Your task to perform on an android device: Go to privacy settings Image 0: 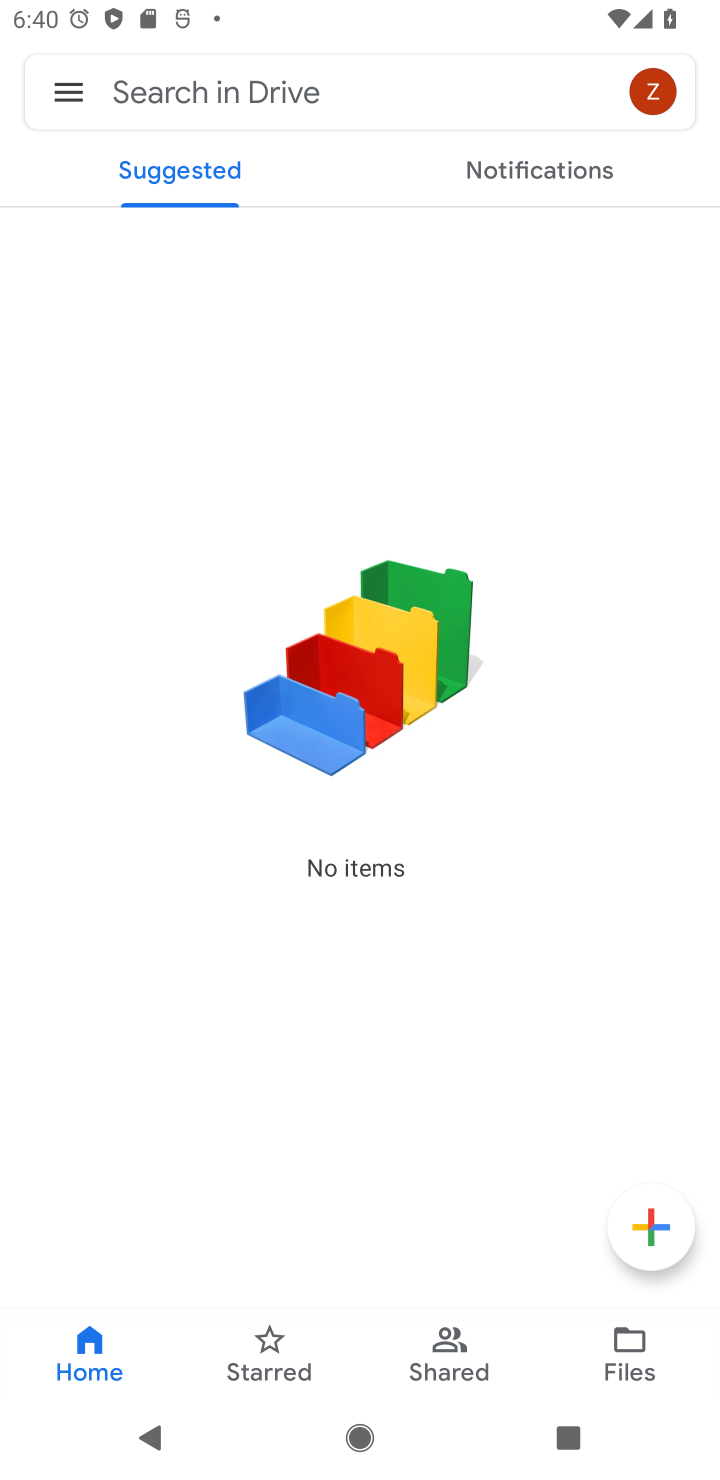
Step 0: press home button
Your task to perform on an android device: Go to privacy settings Image 1: 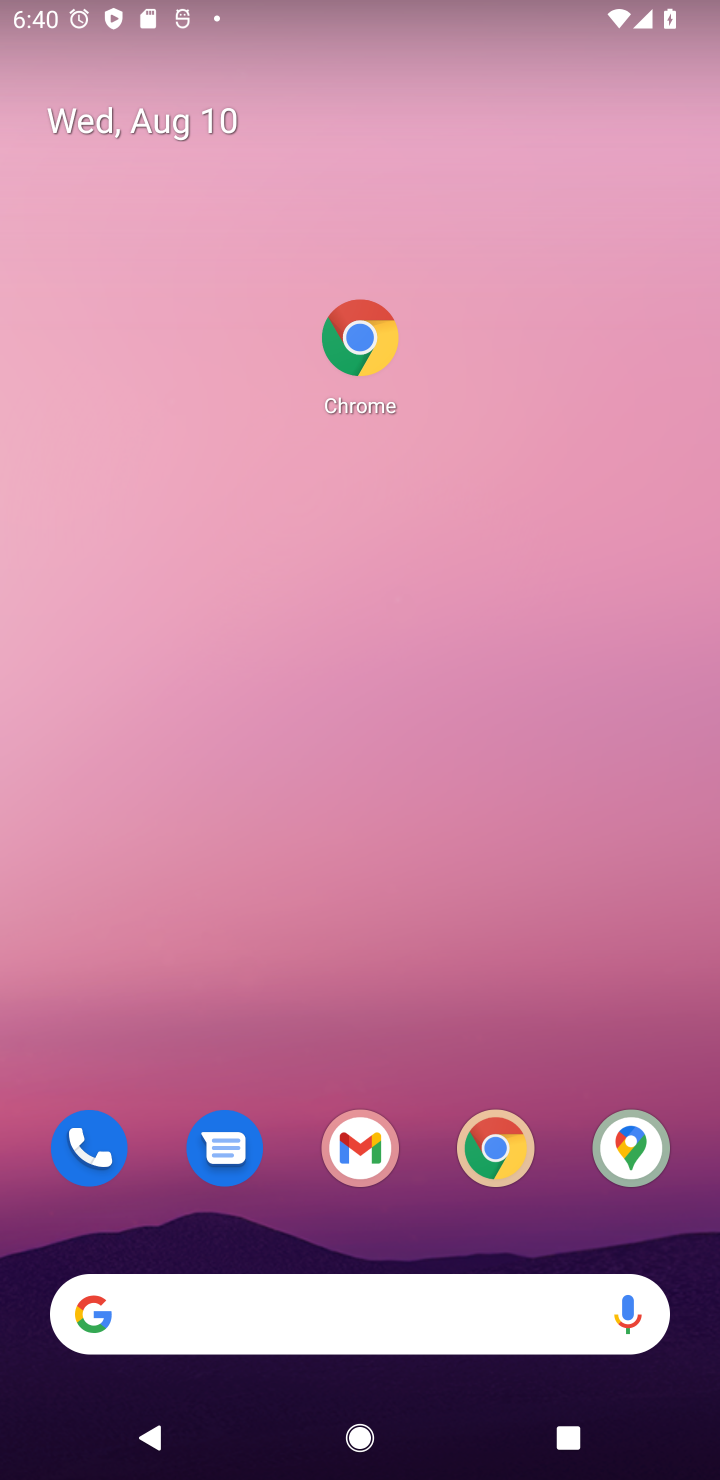
Step 1: drag from (278, 1058) to (369, 338)
Your task to perform on an android device: Go to privacy settings Image 2: 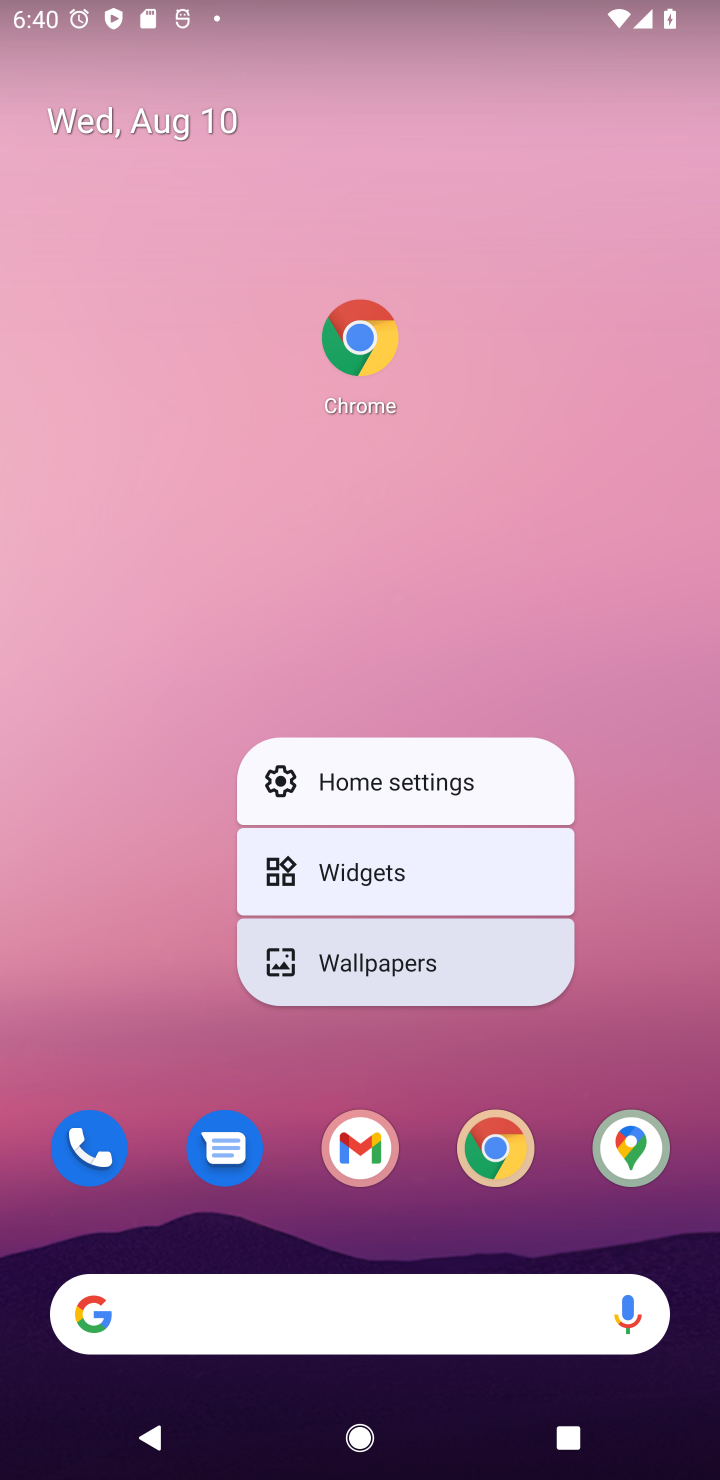
Step 2: click (552, 1037)
Your task to perform on an android device: Go to privacy settings Image 3: 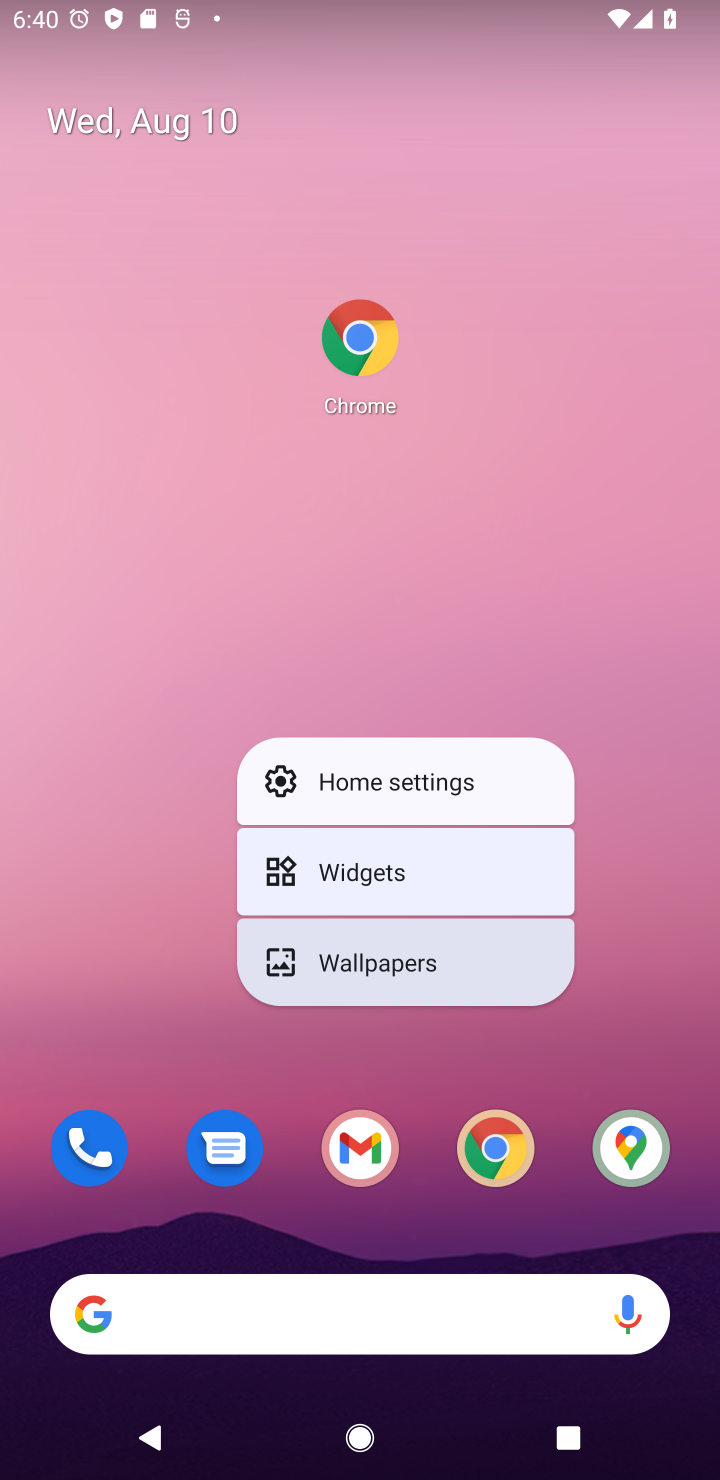
Step 3: drag from (552, 1037) to (636, 28)
Your task to perform on an android device: Go to privacy settings Image 4: 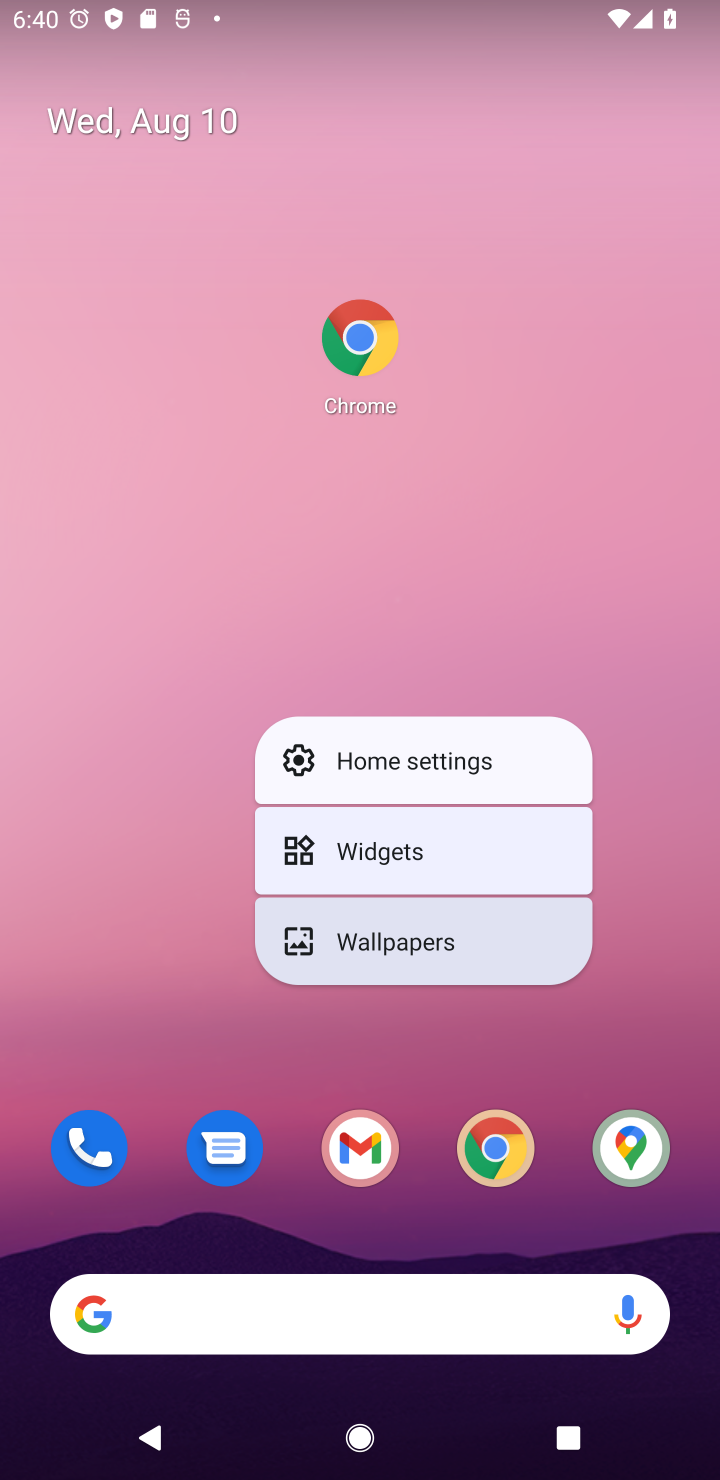
Step 4: click (32, 1033)
Your task to perform on an android device: Go to privacy settings Image 5: 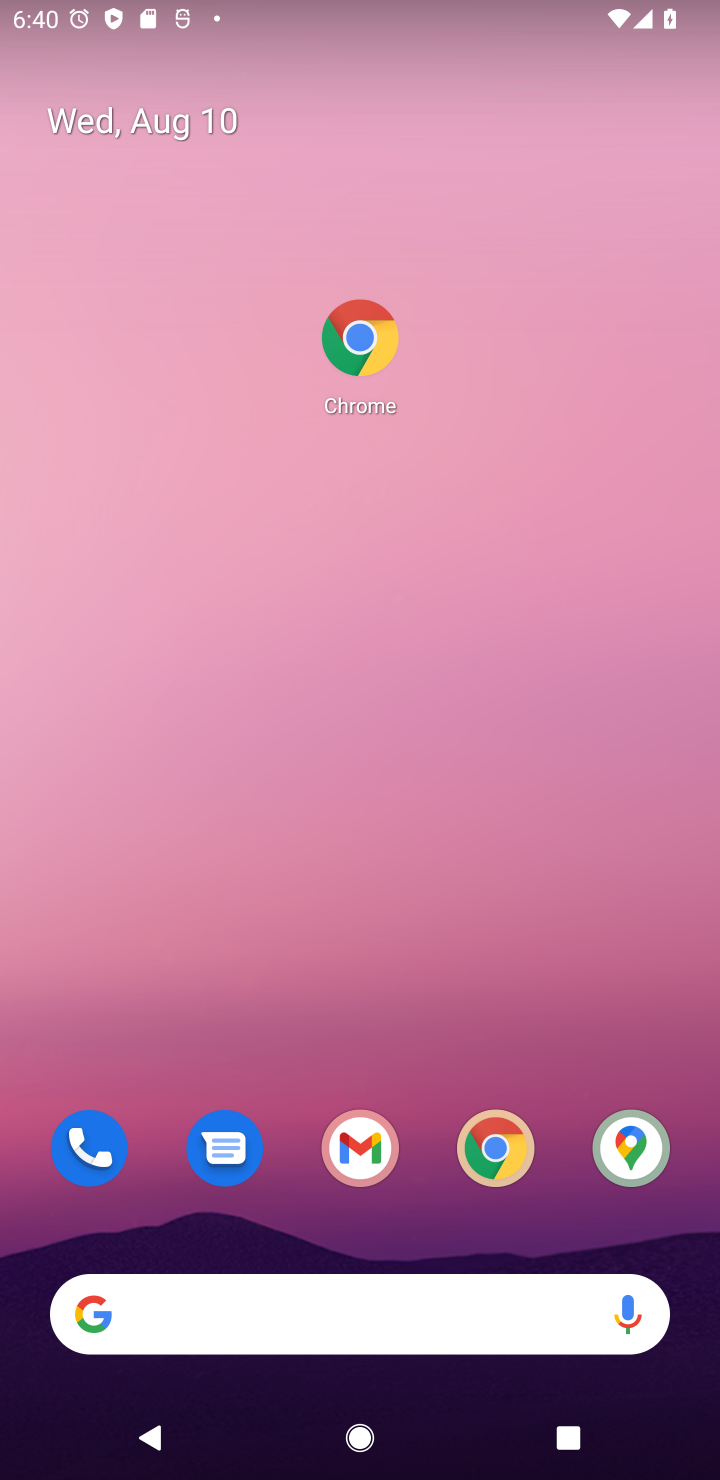
Step 5: drag from (32, 1033) to (289, 17)
Your task to perform on an android device: Go to privacy settings Image 6: 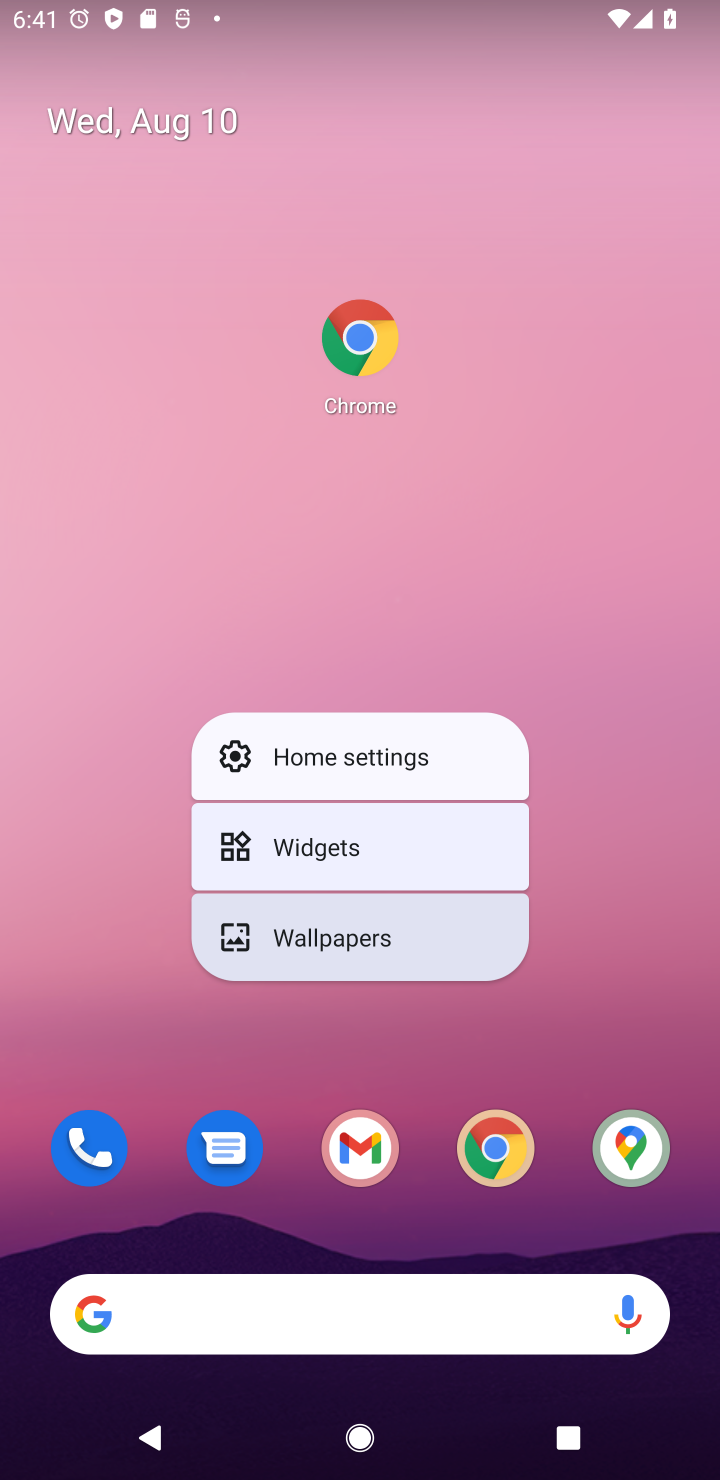
Step 6: click (576, 827)
Your task to perform on an android device: Go to privacy settings Image 7: 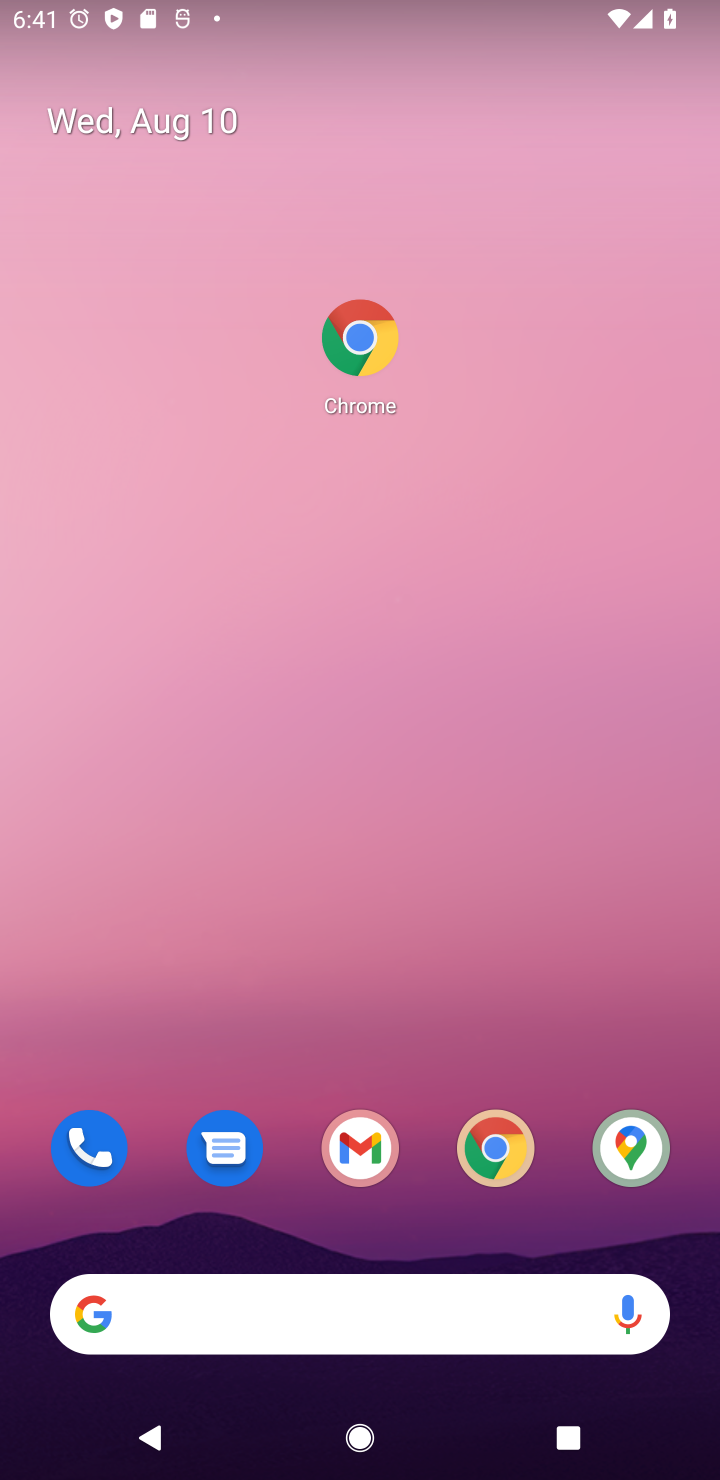
Step 7: drag from (578, 1062) to (552, 197)
Your task to perform on an android device: Go to privacy settings Image 8: 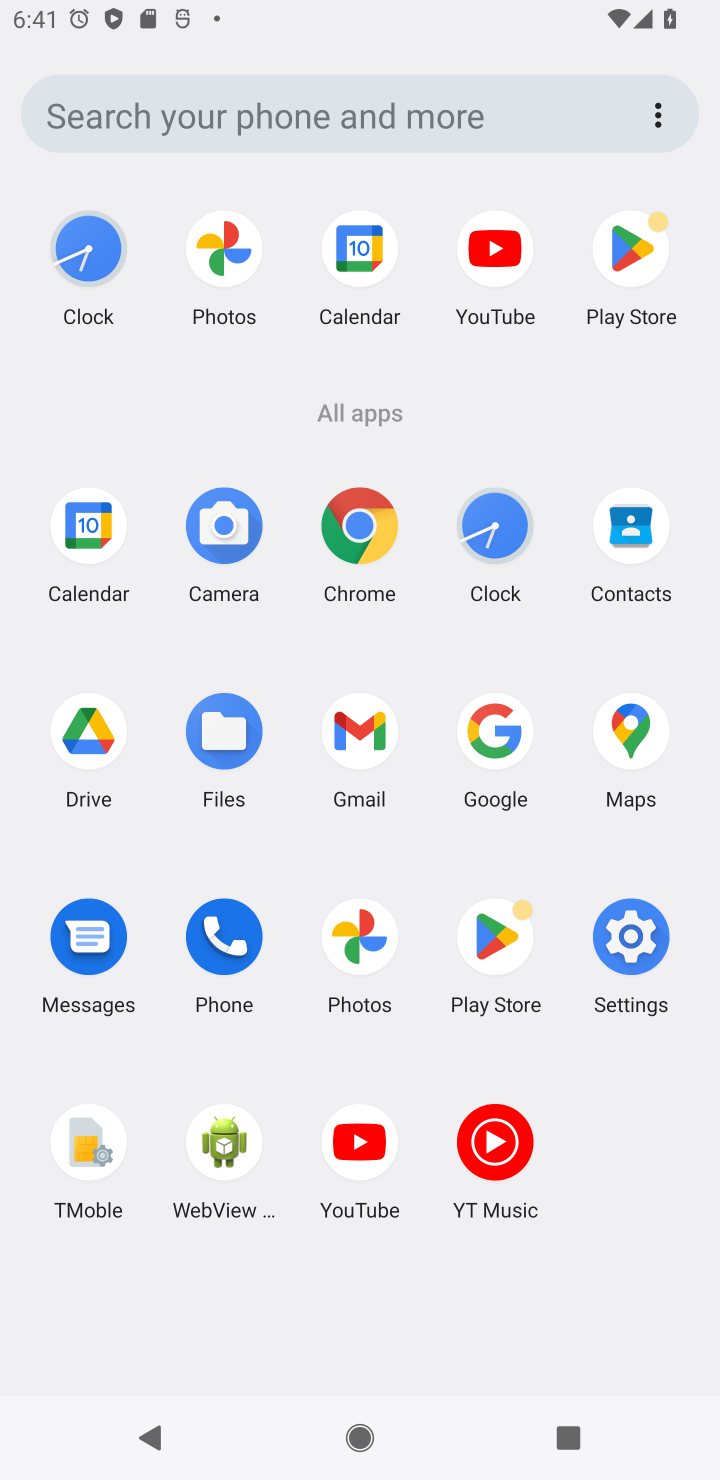
Step 8: click (607, 966)
Your task to perform on an android device: Go to privacy settings Image 9: 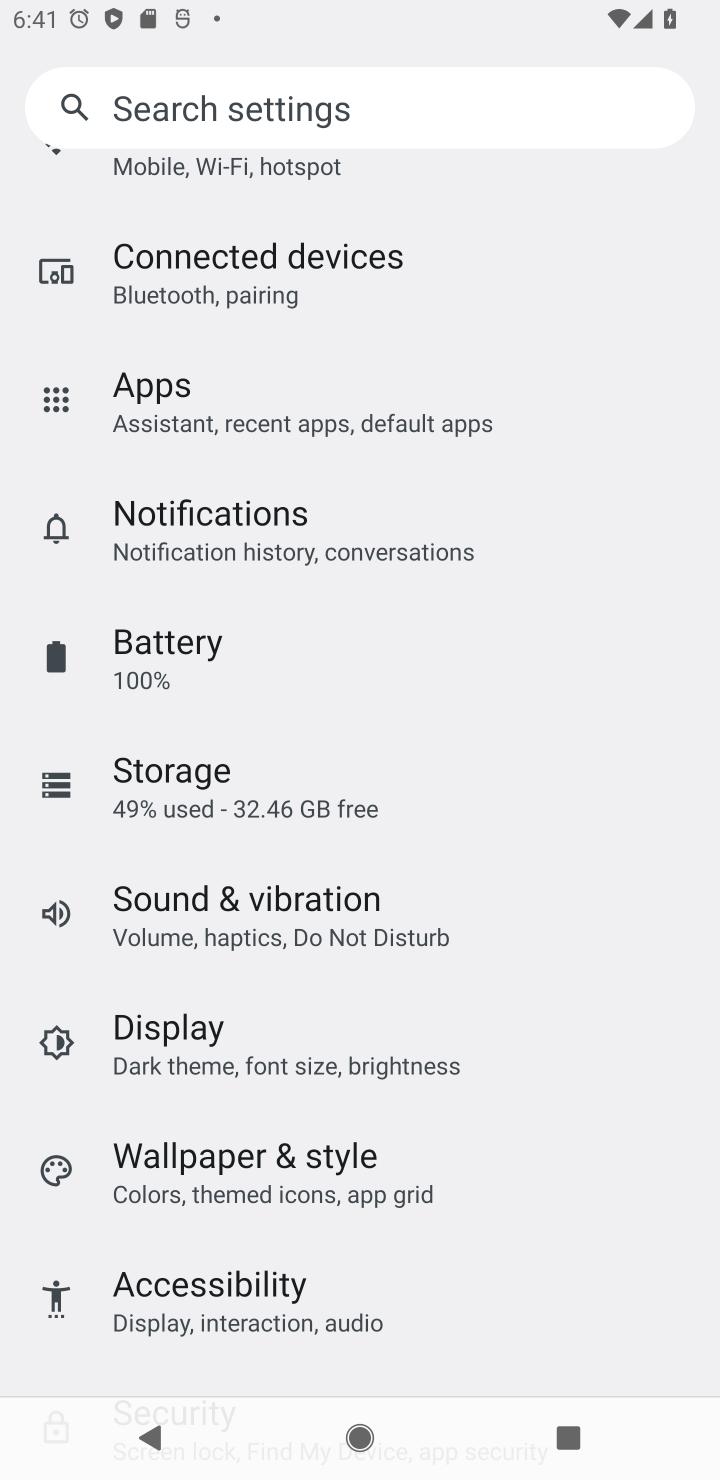
Step 9: drag from (570, 832) to (492, 217)
Your task to perform on an android device: Go to privacy settings Image 10: 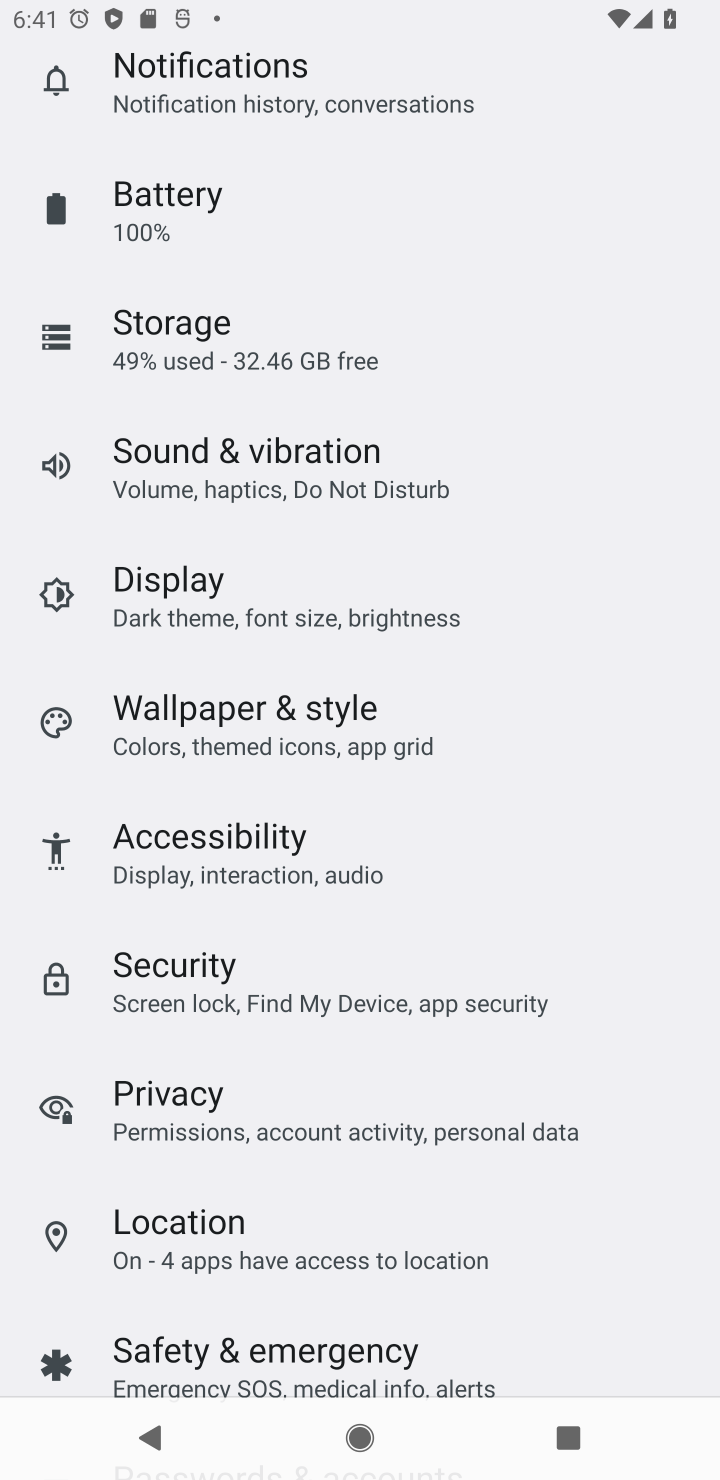
Step 10: click (208, 1120)
Your task to perform on an android device: Go to privacy settings Image 11: 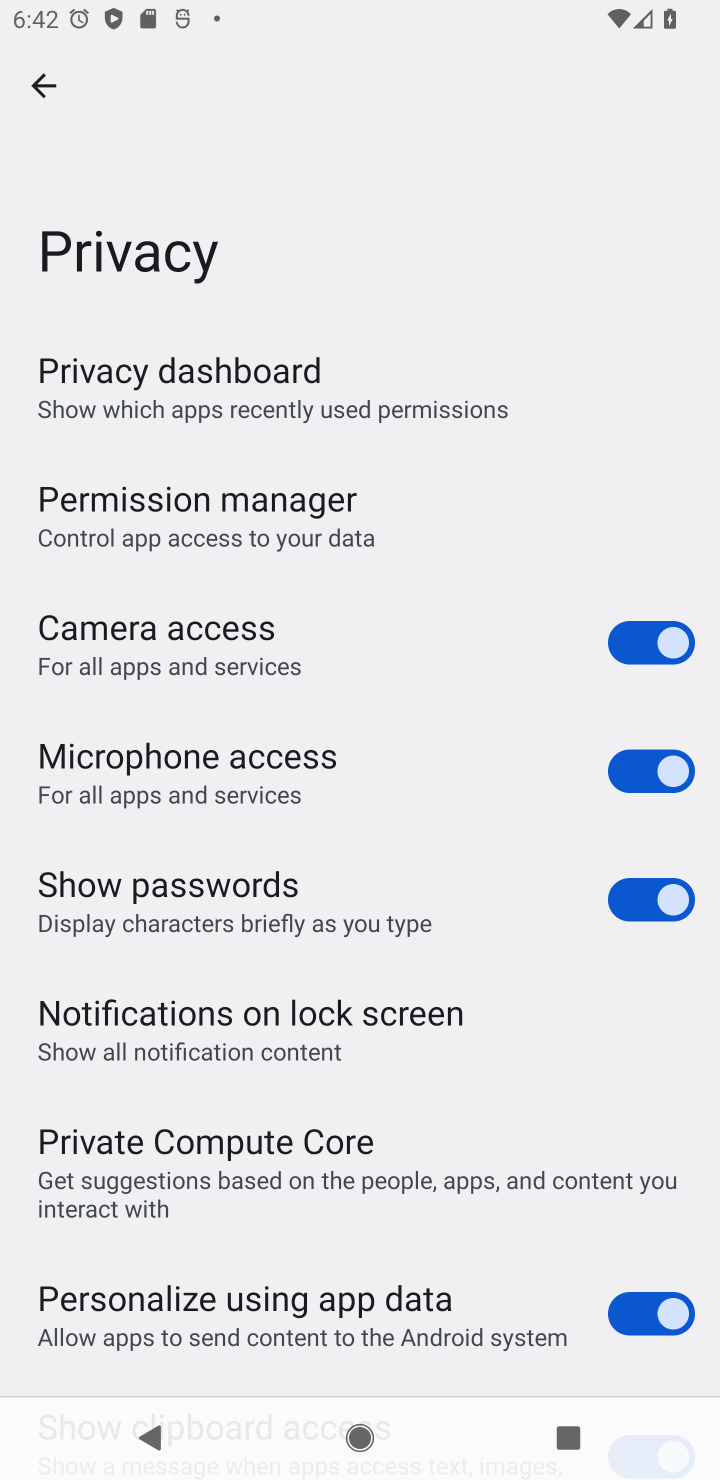
Step 11: task complete